Your task to perform on an android device: Open the calendar app, open the side menu, and click the "Day" option Image 0: 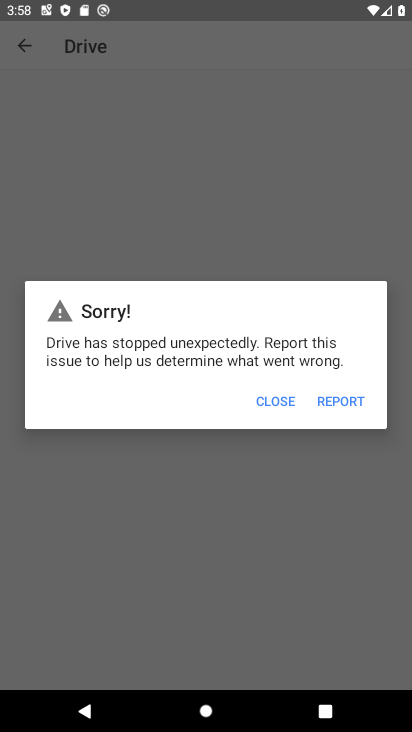
Step 0: press home button
Your task to perform on an android device: Open the calendar app, open the side menu, and click the "Day" option Image 1: 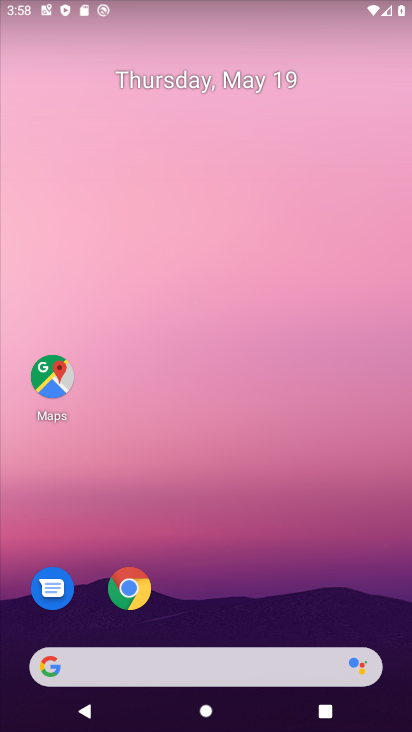
Step 1: click (193, 73)
Your task to perform on an android device: Open the calendar app, open the side menu, and click the "Day" option Image 2: 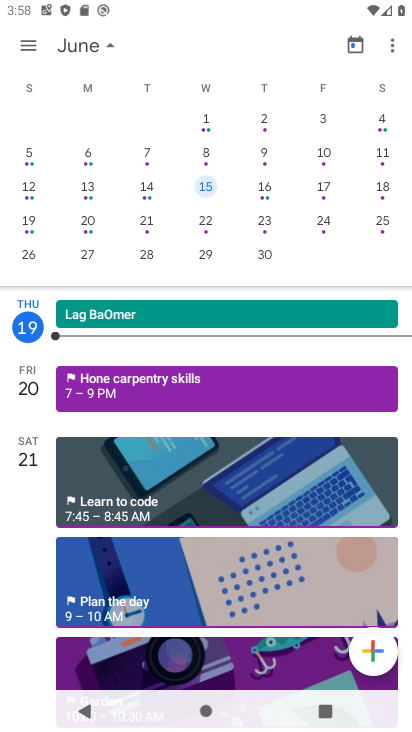
Step 2: click (22, 52)
Your task to perform on an android device: Open the calendar app, open the side menu, and click the "Day" option Image 3: 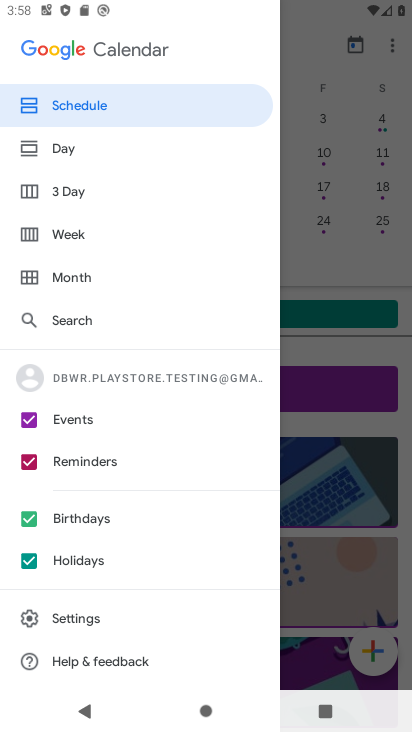
Step 3: click (74, 154)
Your task to perform on an android device: Open the calendar app, open the side menu, and click the "Day" option Image 4: 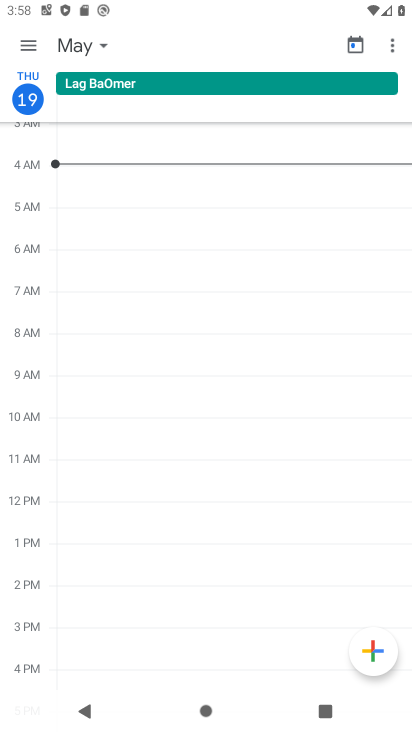
Step 4: task complete